Your task to perform on an android device: Add "macbook pro" to the cart on costco.com Image 0: 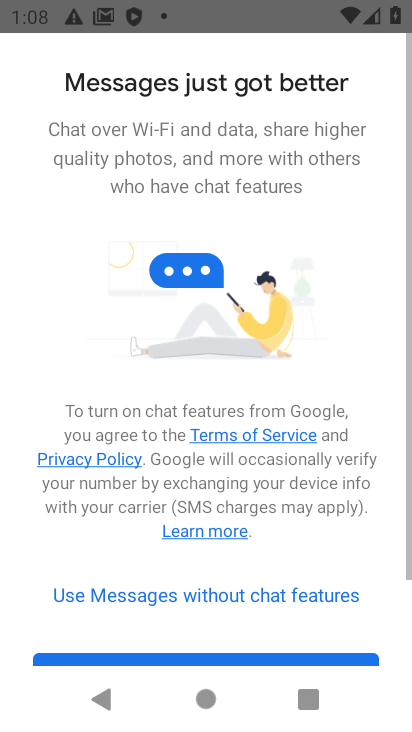
Step 0: press home button
Your task to perform on an android device: Add "macbook pro" to the cart on costco.com Image 1: 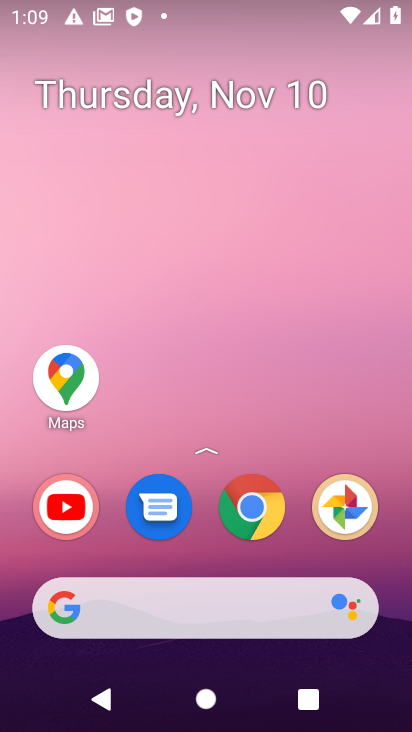
Step 1: click (268, 496)
Your task to perform on an android device: Add "macbook pro" to the cart on costco.com Image 2: 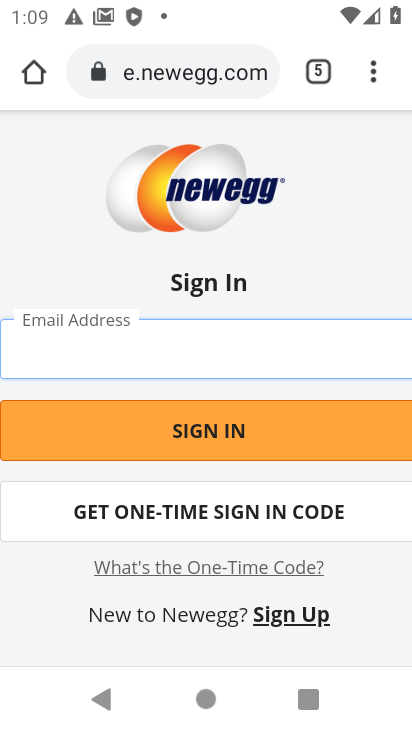
Step 2: click (315, 72)
Your task to perform on an android device: Add "macbook pro" to the cart on costco.com Image 3: 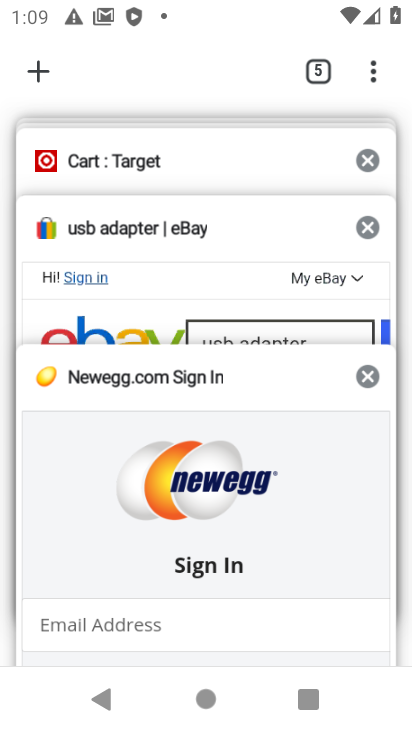
Step 3: click (36, 70)
Your task to perform on an android device: Add "macbook pro" to the cart on costco.com Image 4: 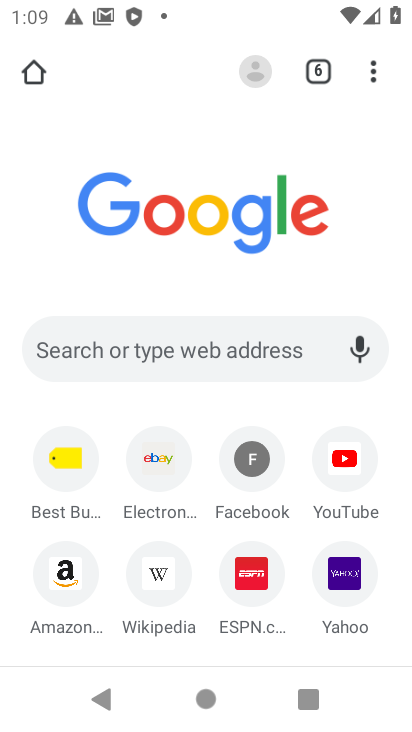
Step 4: click (95, 342)
Your task to perform on an android device: Add "macbook pro" to the cart on costco.com Image 5: 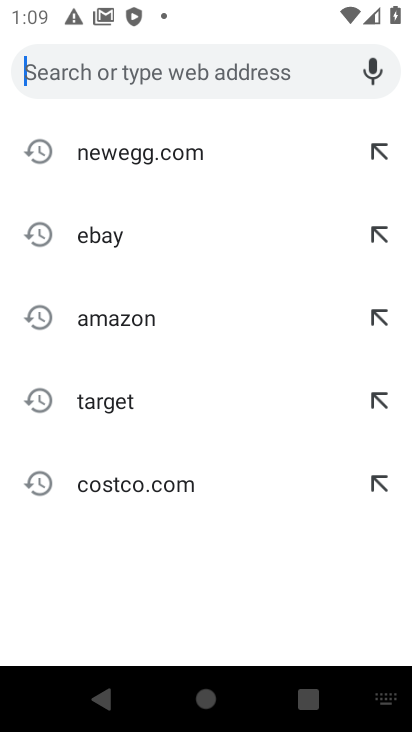
Step 5: click (107, 482)
Your task to perform on an android device: Add "macbook pro" to the cart on costco.com Image 6: 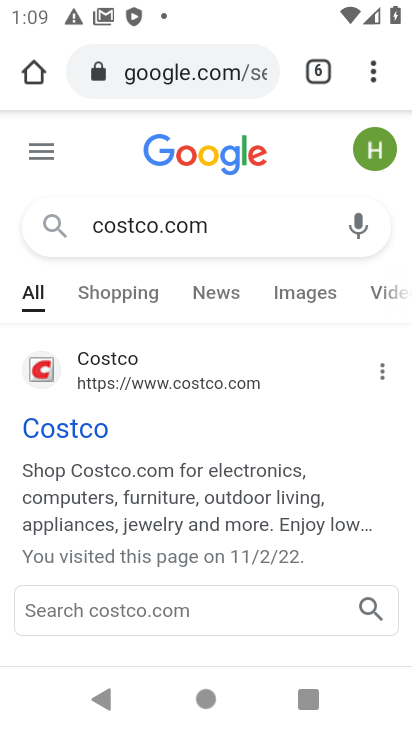
Step 6: click (117, 610)
Your task to perform on an android device: Add "macbook pro" to the cart on costco.com Image 7: 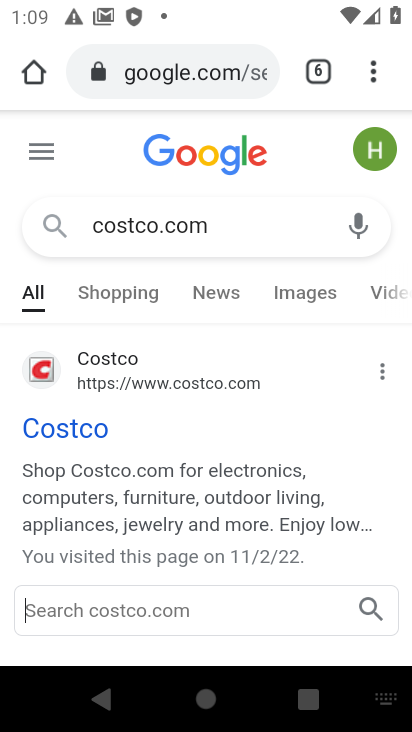
Step 7: type "macbook pro"
Your task to perform on an android device: Add "macbook pro" to the cart on costco.com Image 8: 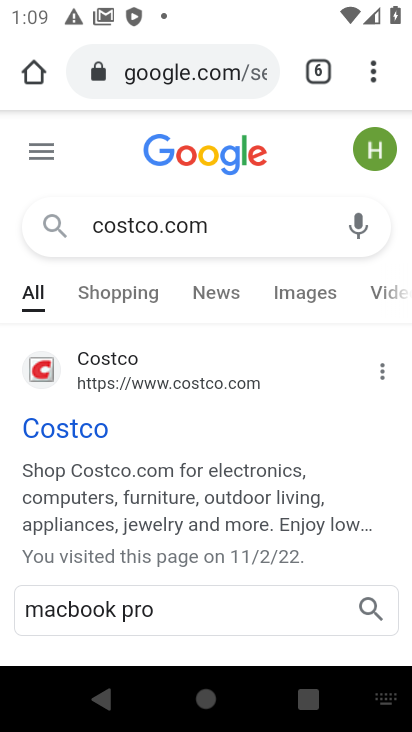
Step 8: click (365, 601)
Your task to perform on an android device: Add "macbook pro" to the cart on costco.com Image 9: 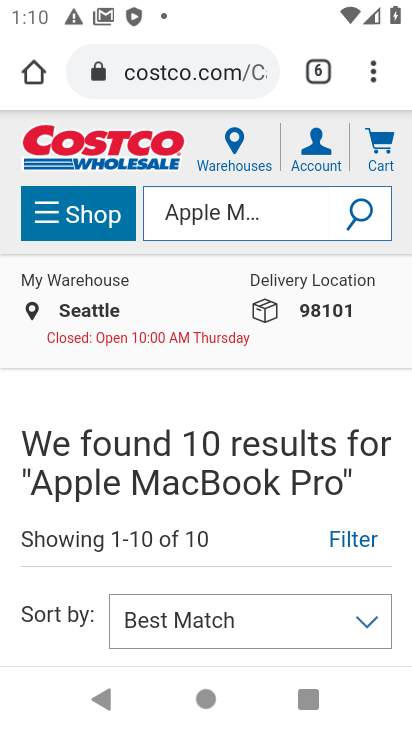
Step 9: drag from (245, 576) to (207, 350)
Your task to perform on an android device: Add "macbook pro" to the cart on costco.com Image 10: 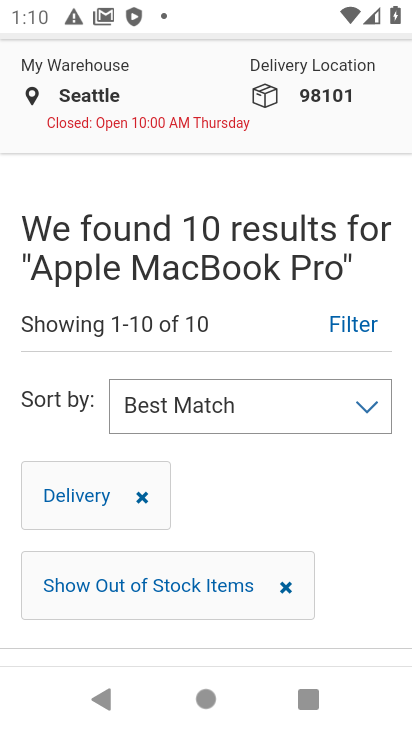
Step 10: drag from (193, 465) to (90, 148)
Your task to perform on an android device: Add "macbook pro" to the cart on costco.com Image 11: 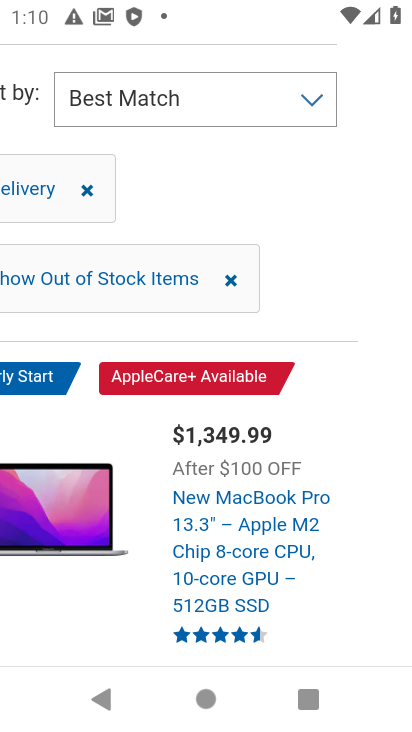
Step 11: click (216, 509)
Your task to perform on an android device: Add "macbook pro" to the cart on costco.com Image 12: 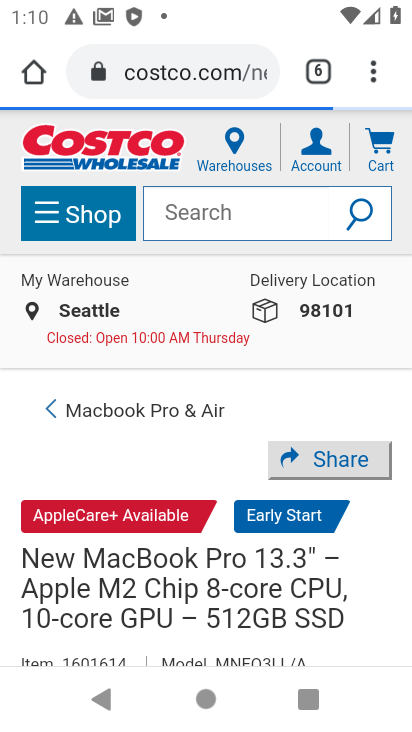
Step 12: drag from (268, 637) to (122, 115)
Your task to perform on an android device: Add "macbook pro" to the cart on costco.com Image 13: 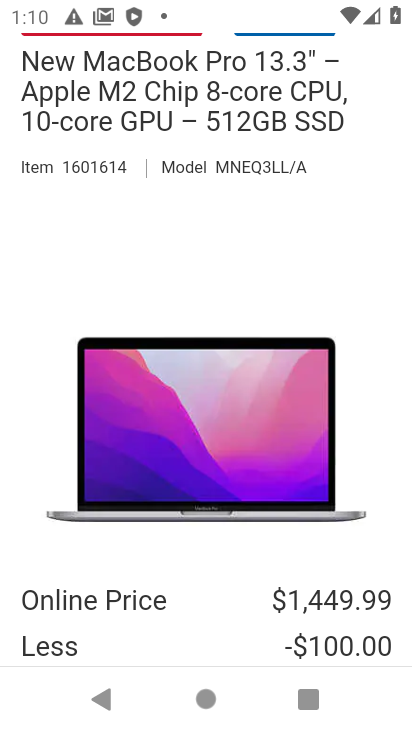
Step 13: drag from (180, 557) to (44, 71)
Your task to perform on an android device: Add "macbook pro" to the cart on costco.com Image 14: 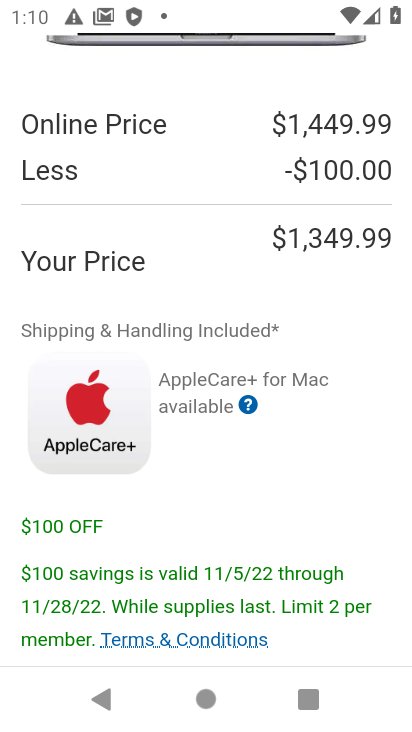
Step 14: drag from (216, 589) to (119, 80)
Your task to perform on an android device: Add "macbook pro" to the cart on costco.com Image 15: 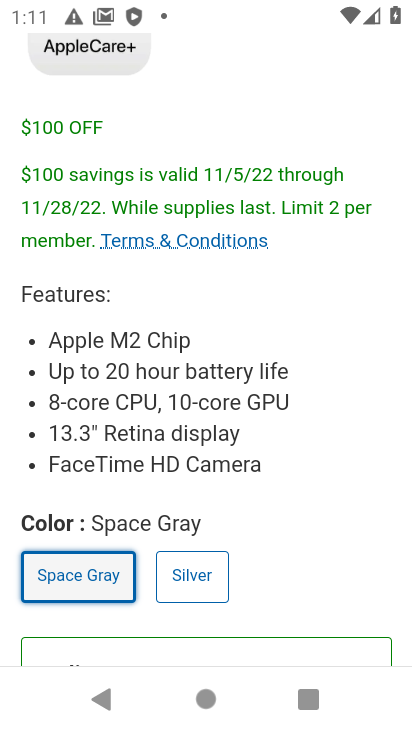
Step 15: drag from (261, 535) to (208, 288)
Your task to perform on an android device: Add "macbook pro" to the cart on costco.com Image 16: 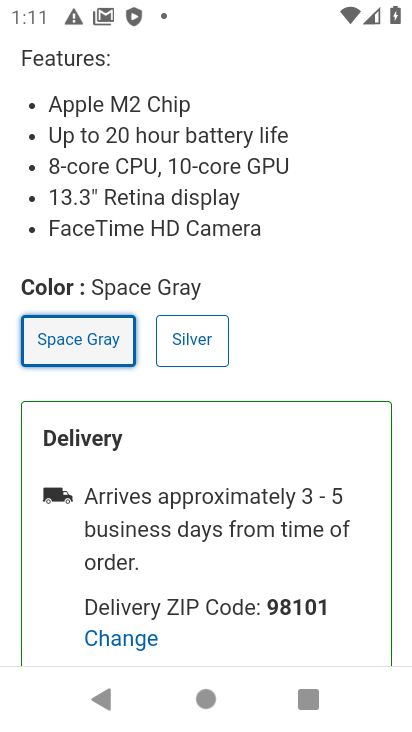
Step 16: drag from (300, 554) to (143, 97)
Your task to perform on an android device: Add "macbook pro" to the cart on costco.com Image 17: 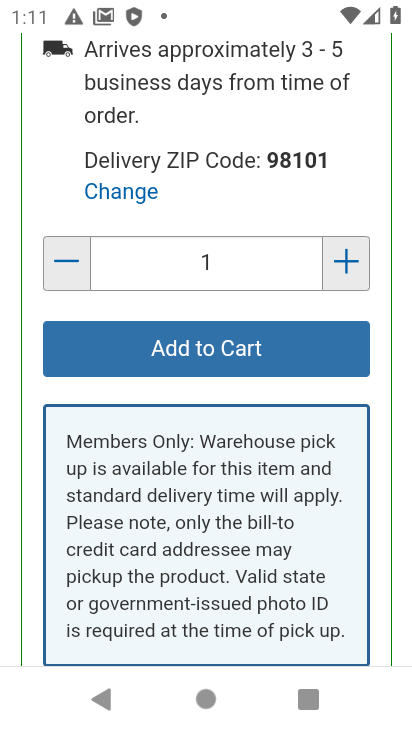
Step 17: click (174, 349)
Your task to perform on an android device: Add "macbook pro" to the cart on costco.com Image 18: 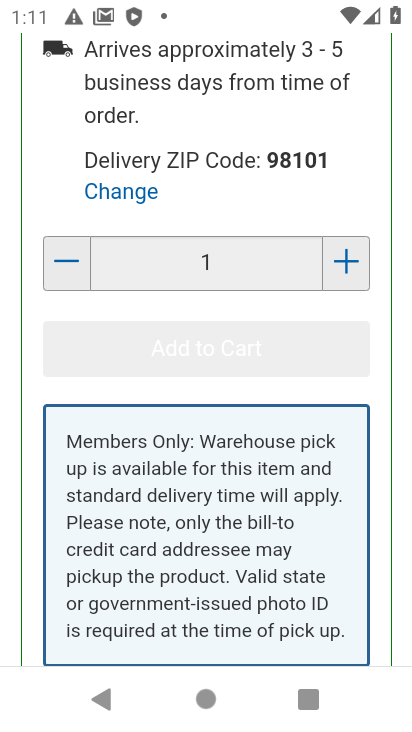
Step 18: click (174, 349)
Your task to perform on an android device: Add "macbook pro" to the cart on costco.com Image 19: 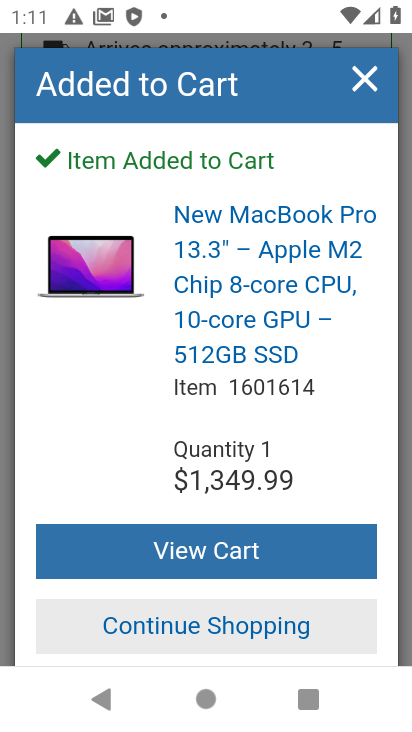
Step 19: task complete